Your task to perform on an android device: Open Google Image 0: 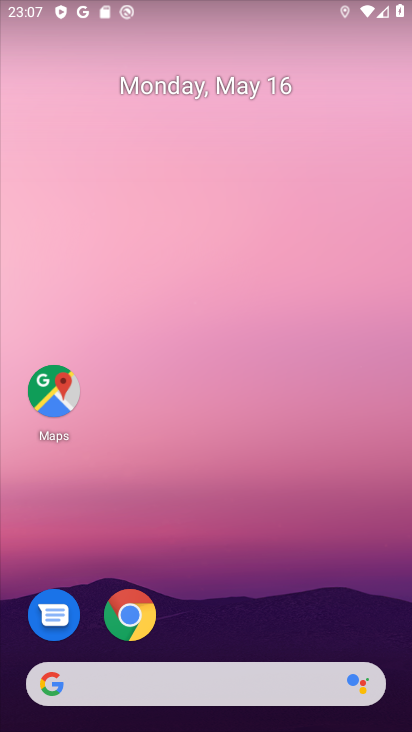
Step 0: drag from (210, 650) to (163, 118)
Your task to perform on an android device: Open Google Image 1: 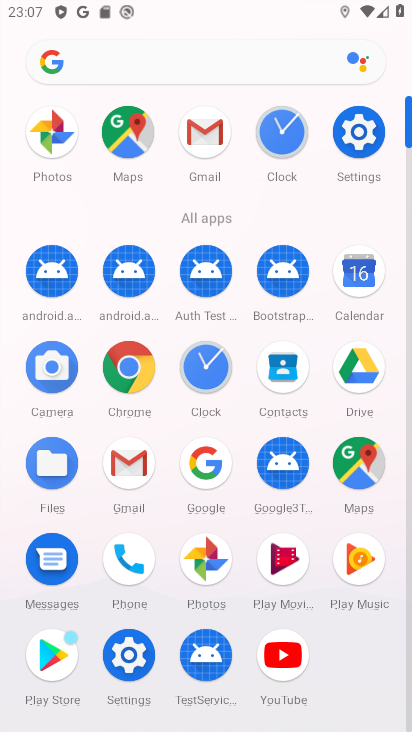
Step 1: click (209, 446)
Your task to perform on an android device: Open Google Image 2: 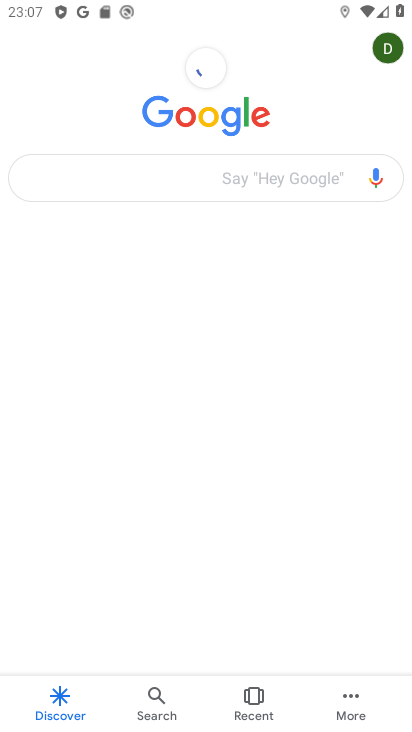
Step 2: task complete